Your task to perform on an android device: toggle improve location accuracy Image 0: 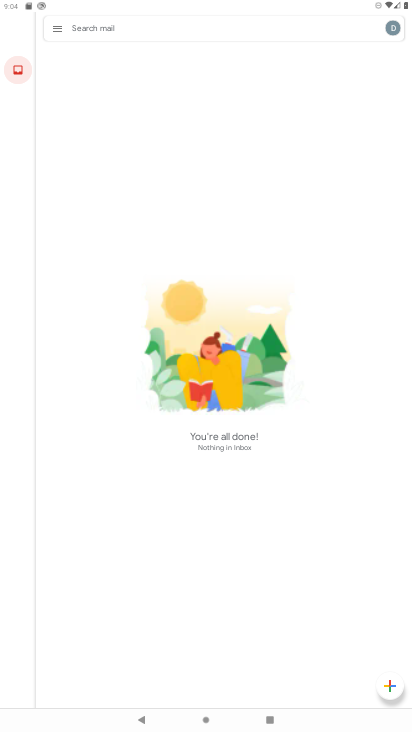
Step 0: press back button
Your task to perform on an android device: toggle improve location accuracy Image 1: 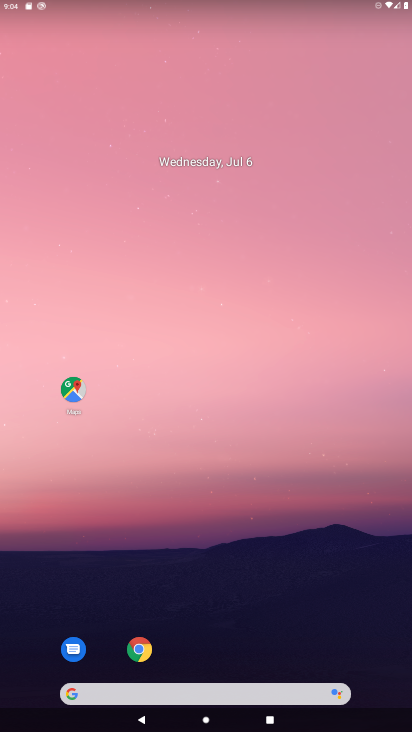
Step 1: drag from (330, 641) to (212, 263)
Your task to perform on an android device: toggle improve location accuracy Image 2: 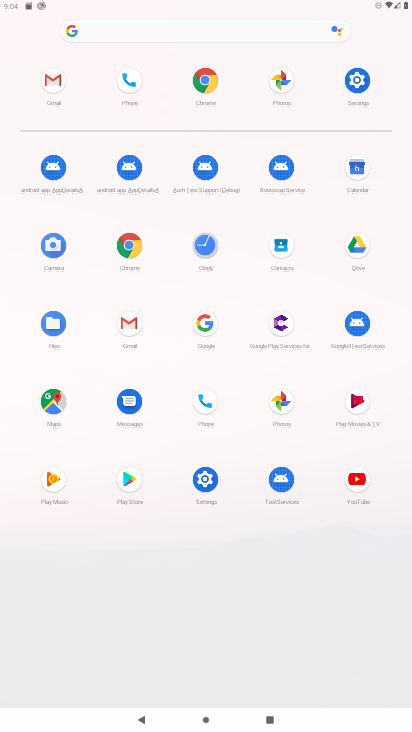
Step 2: click (350, 71)
Your task to perform on an android device: toggle improve location accuracy Image 3: 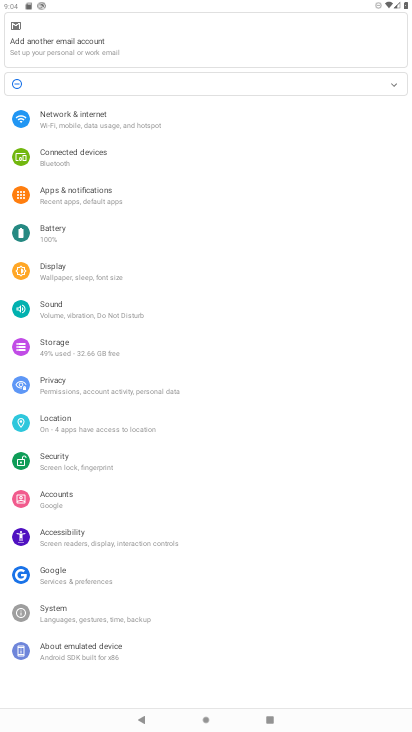
Step 3: click (63, 425)
Your task to perform on an android device: toggle improve location accuracy Image 4: 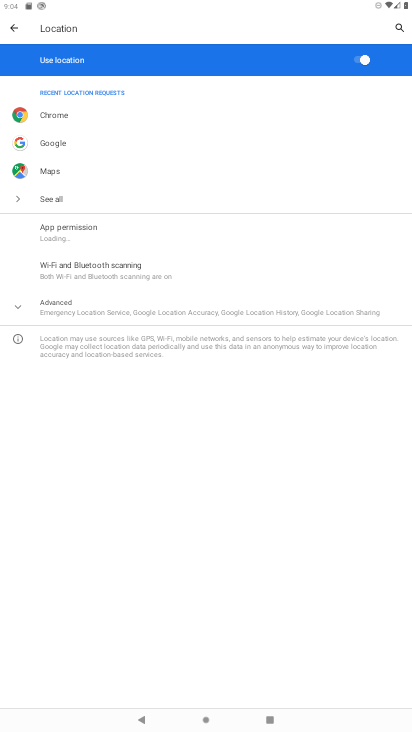
Step 4: click (118, 314)
Your task to perform on an android device: toggle improve location accuracy Image 5: 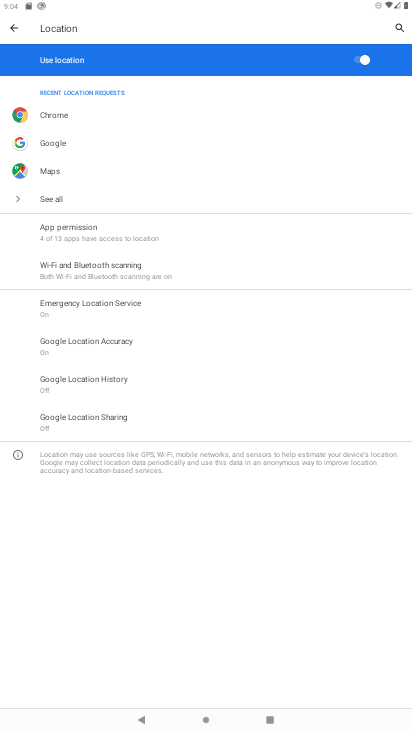
Step 5: click (119, 344)
Your task to perform on an android device: toggle improve location accuracy Image 6: 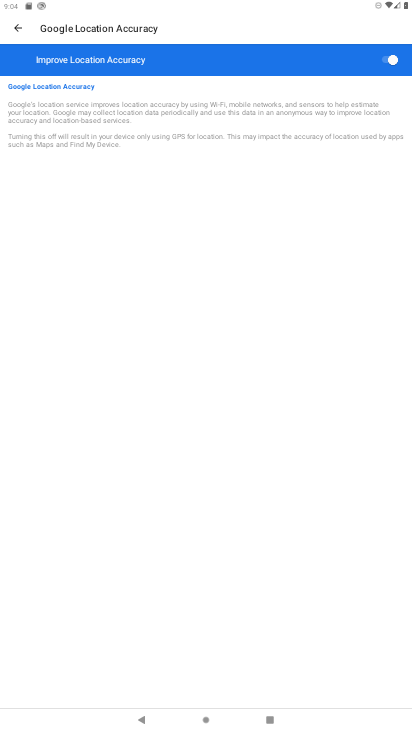
Step 6: click (398, 60)
Your task to perform on an android device: toggle improve location accuracy Image 7: 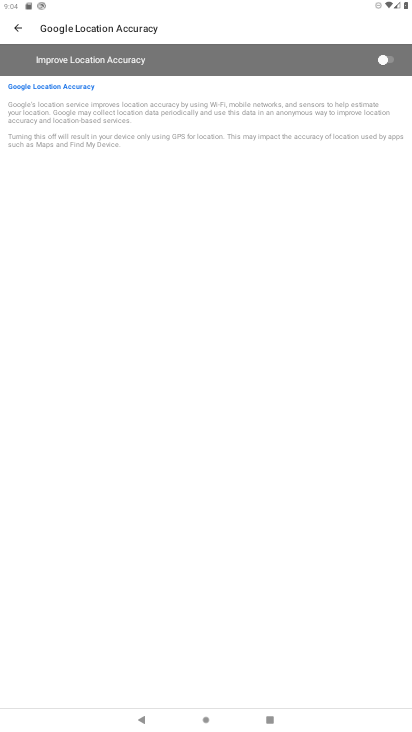
Step 7: task complete